Your task to perform on an android device: turn on notifications settings in the gmail app Image 0: 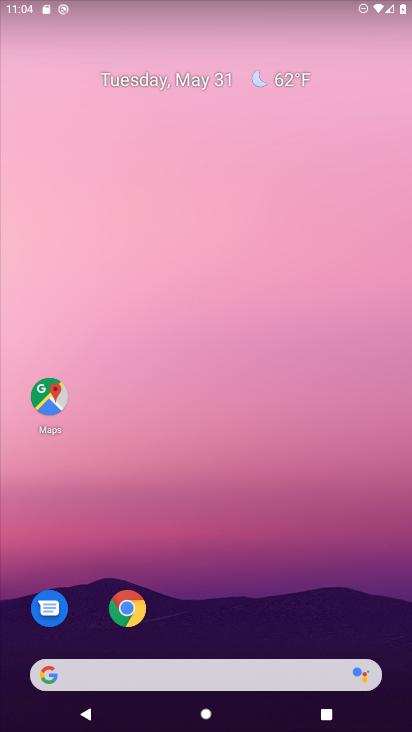
Step 0: drag from (303, 568) to (318, 63)
Your task to perform on an android device: turn on notifications settings in the gmail app Image 1: 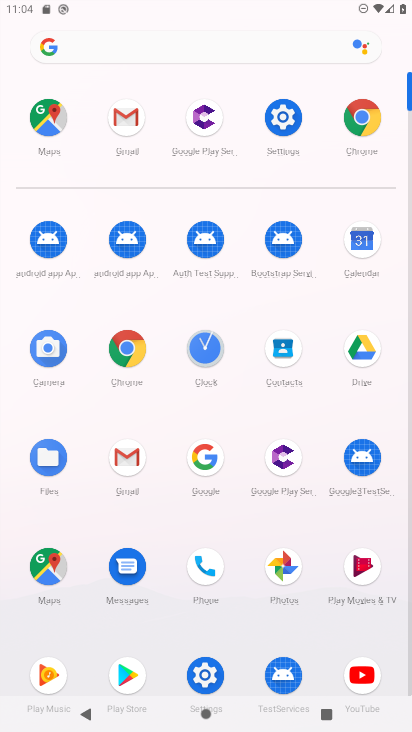
Step 1: click (141, 462)
Your task to perform on an android device: turn on notifications settings in the gmail app Image 2: 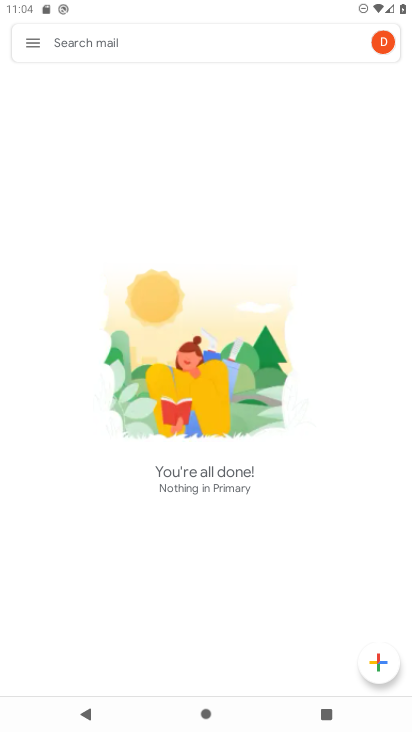
Step 2: click (19, 45)
Your task to perform on an android device: turn on notifications settings in the gmail app Image 3: 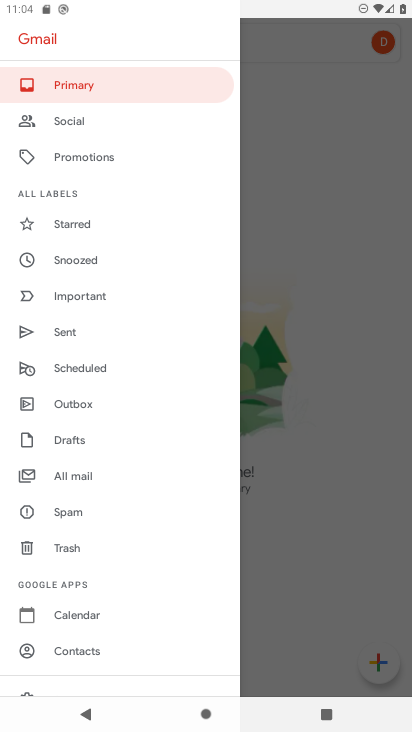
Step 3: drag from (140, 657) to (144, 430)
Your task to perform on an android device: turn on notifications settings in the gmail app Image 4: 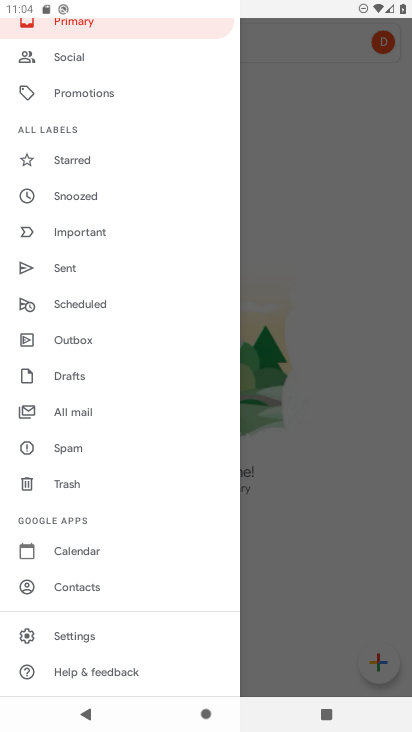
Step 4: click (91, 632)
Your task to perform on an android device: turn on notifications settings in the gmail app Image 5: 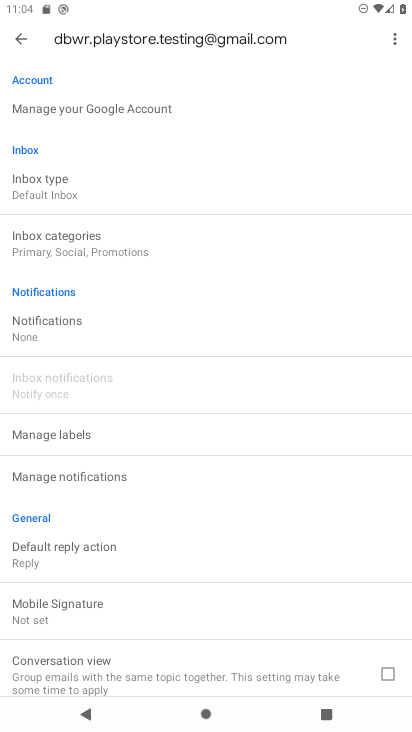
Step 5: click (45, 318)
Your task to perform on an android device: turn on notifications settings in the gmail app Image 6: 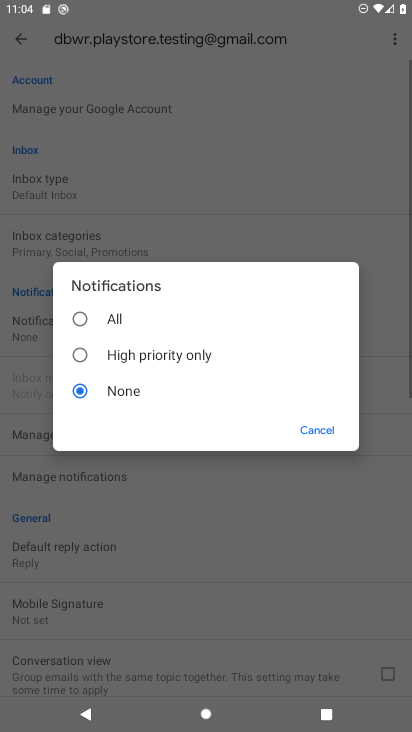
Step 6: click (82, 315)
Your task to perform on an android device: turn on notifications settings in the gmail app Image 7: 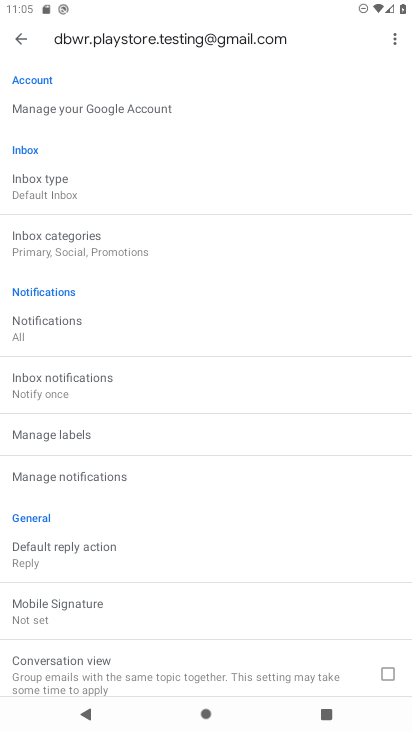
Step 7: task complete